Your task to perform on an android device: toggle javascript in the chrome app Image 0: 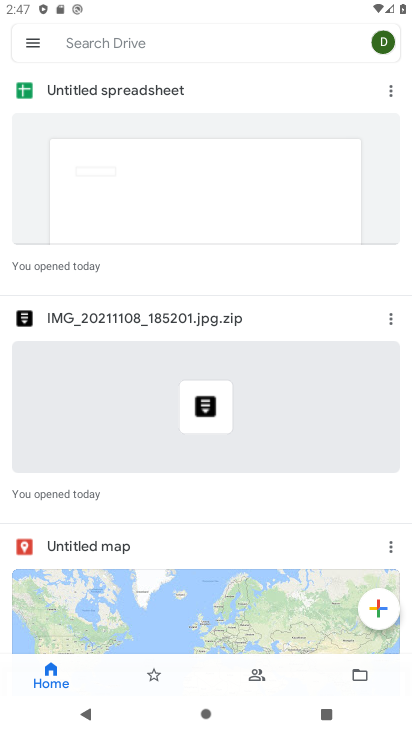
Step 0: press home button
Your task to perform on an android device: toggle javascript in the chrome app Image 1: 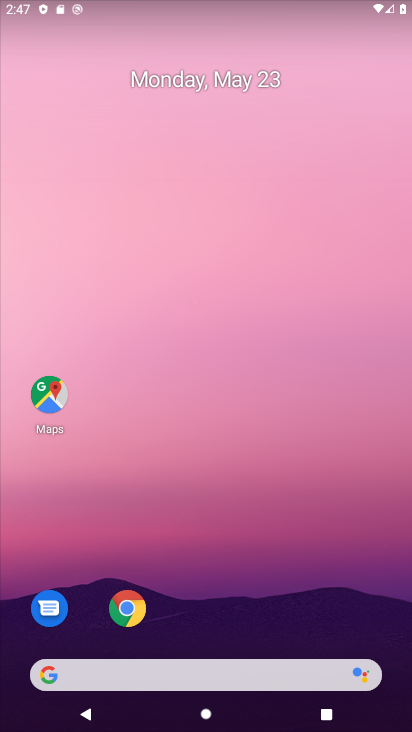
Step 1: drag from (362, 613) to (280, 117)
Your task to perform on an android device: toggle javascript in the chrome app Image 2: 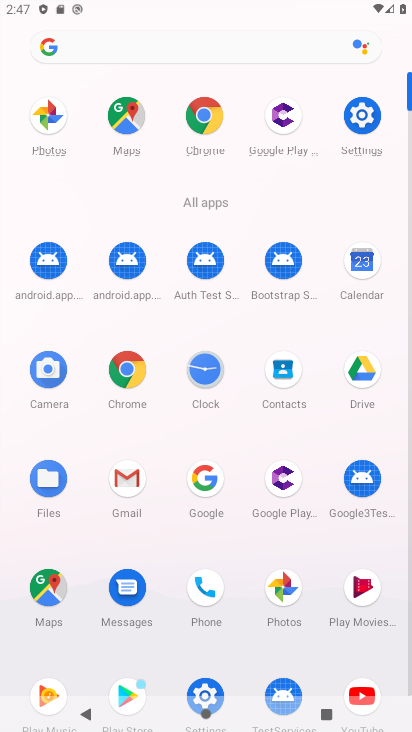
Step 2: click (213, 135)
Your task to perform on an android device: toggle javascript in the chrome app Image 3: 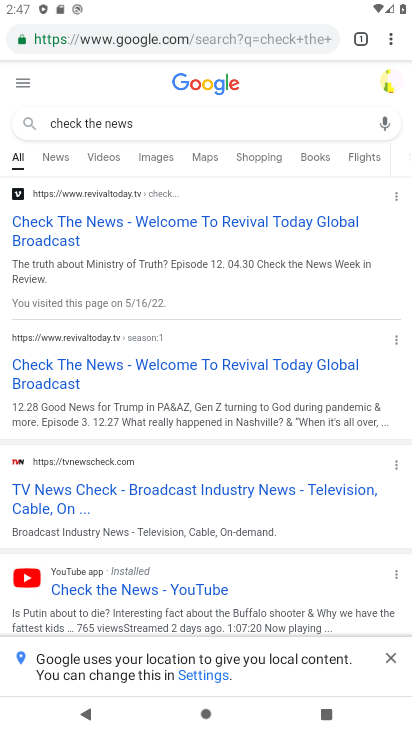
Step 3: drag from (388, 48) to (286, 435)
Your task to perform on an android device: toggle javascript in the chrome app Image 4: 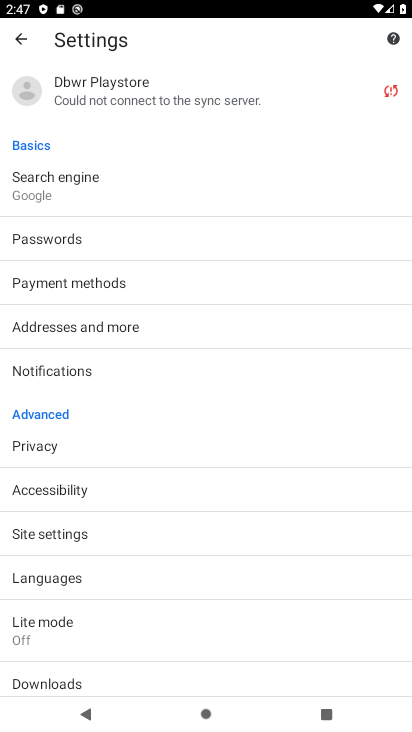
Step 4: click (143, 537)
Your task to perform on an android device: toggle javascript in the chrome app Image 5: 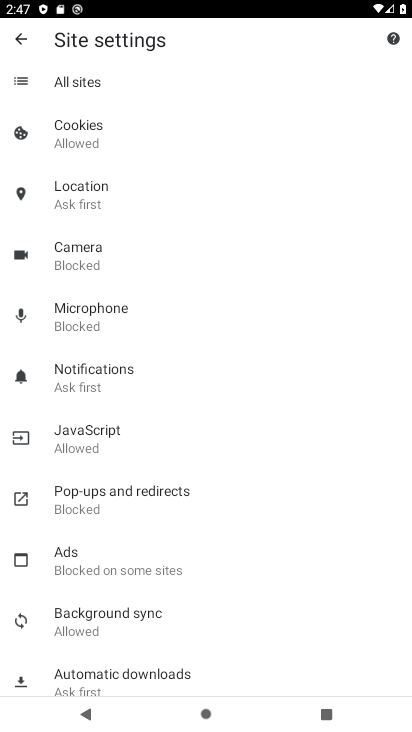
Step 5: drag from (195, 636) to (225, 538)
Your task to perform on an android device: toggle javascript in the chrome app Image 6: 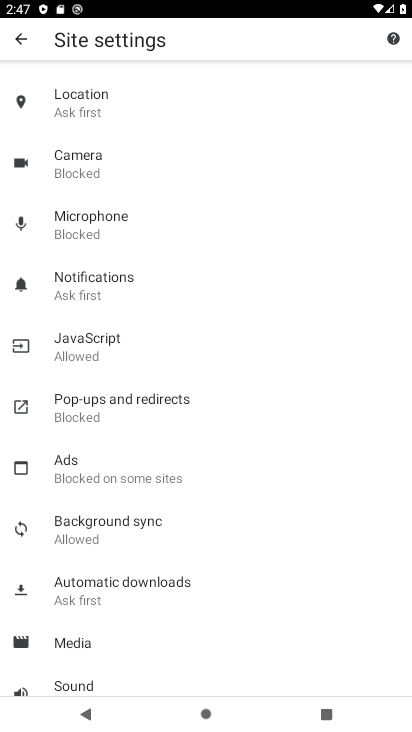
Step 6: click (136, 340)
Your task to perform on an android device: toggle javascript in the chrome app Image 7: 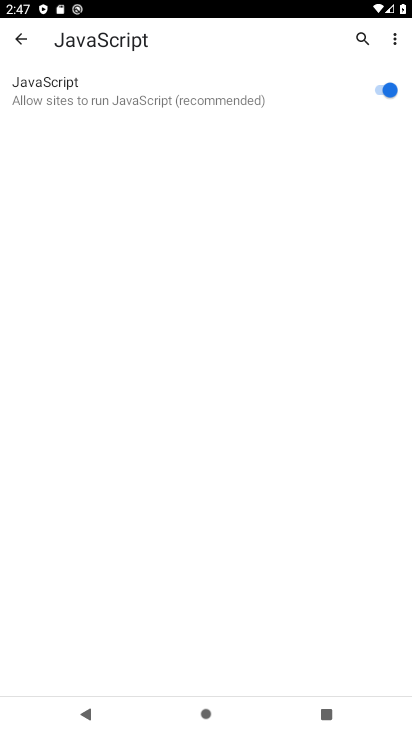
Step 7: click (385, 95)
Your task to perform on an android device: toggle javascript in the chrome app Image 8: 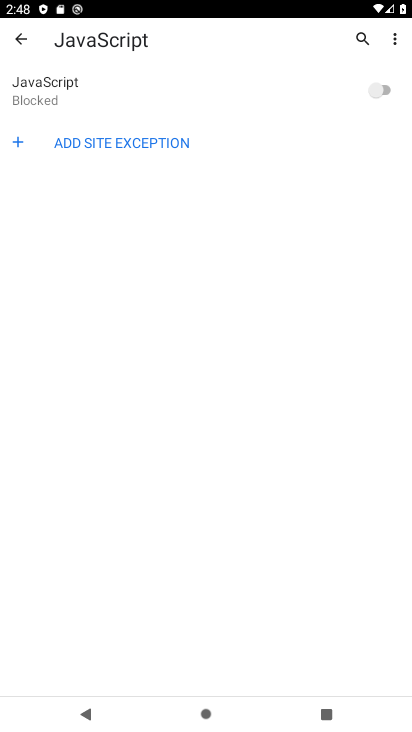
Step 8: task complete